Your task to perform on an android device: Go to Google maps Image 0: 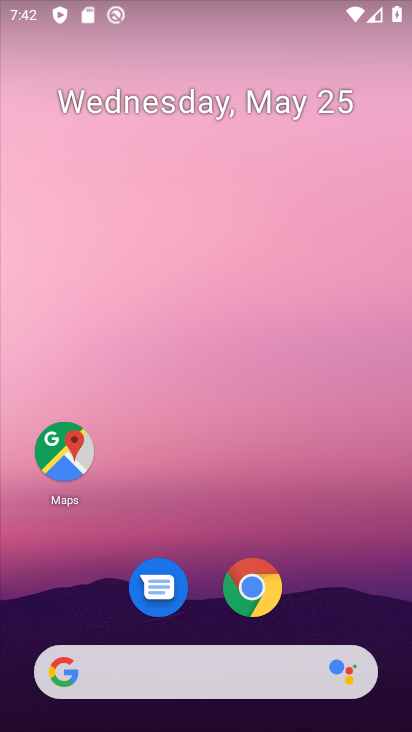
Step 0: click (57, 444)
Your task to perform on an android device: Go to Google maps Image 1: 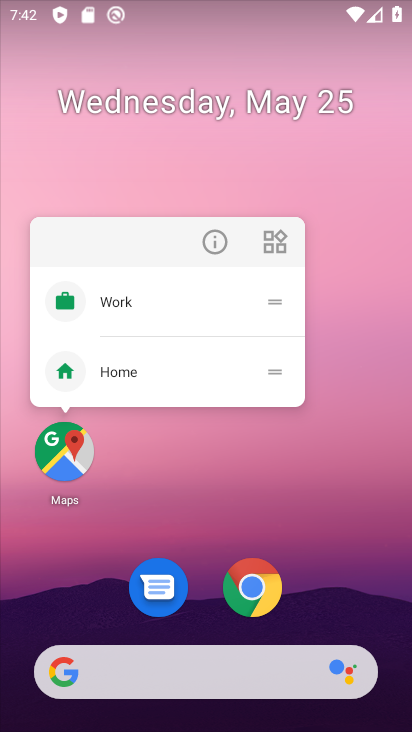
Step 1: click (62, 450)
Your task to perform on an android device: Go to Google maps Image 2: 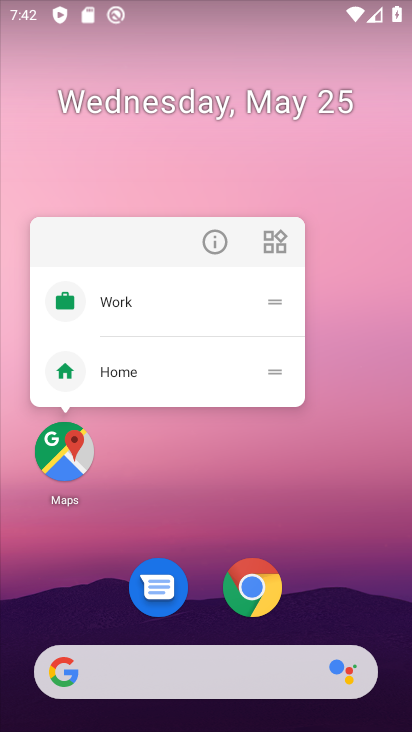
Step 2: click (208, 439)
Your task to perform on an android device: Go to Google maps Image 3: 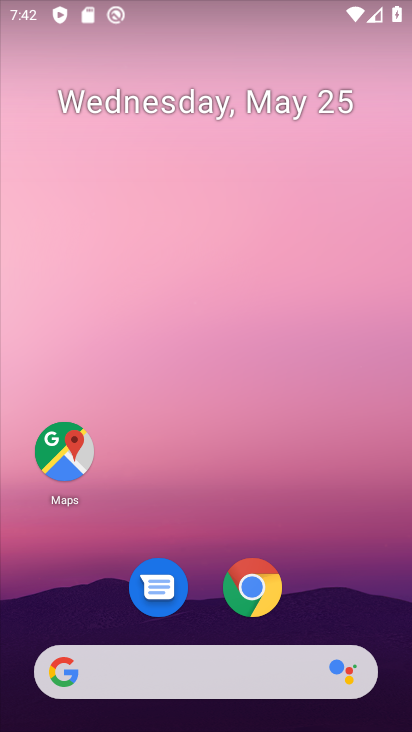
Step 3: drag from (369, 596) to (321, 81)
Your task to perform on an android device: Go to Google maps Image 4: 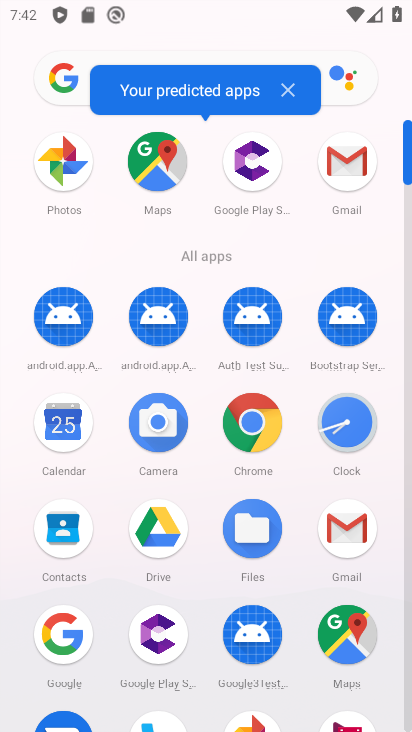
Step 4: click (353, 634)
Your task to perform on an android device: Go to Google maps Image 5: 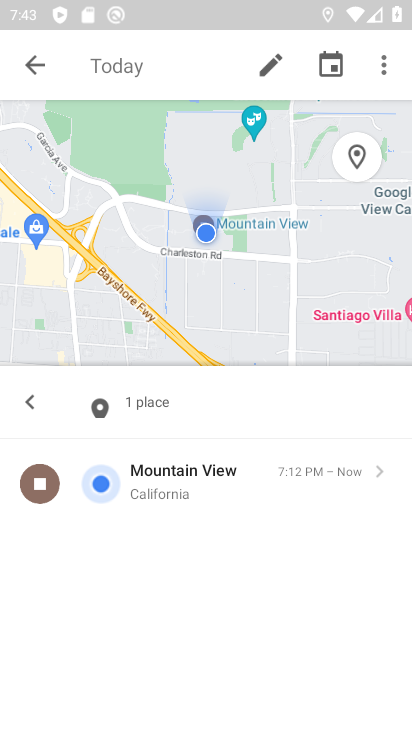
Step 5: click (54, 471)
Your task to perform on an android device: Go to Google maps Image 6: 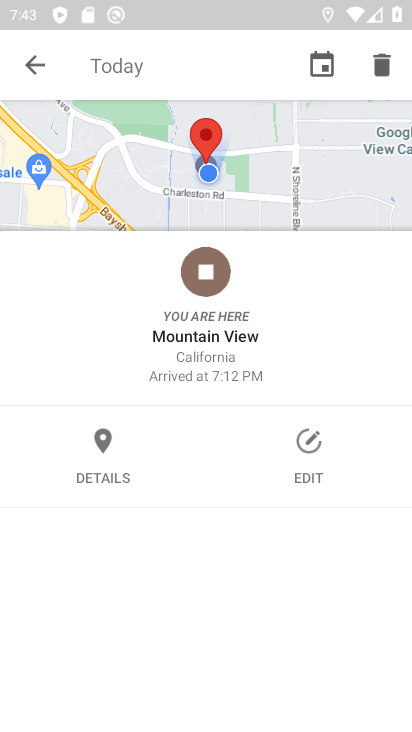
Step 6: task complete